Your task to perform on an android device: Open Maps and search for coffee Image 0: 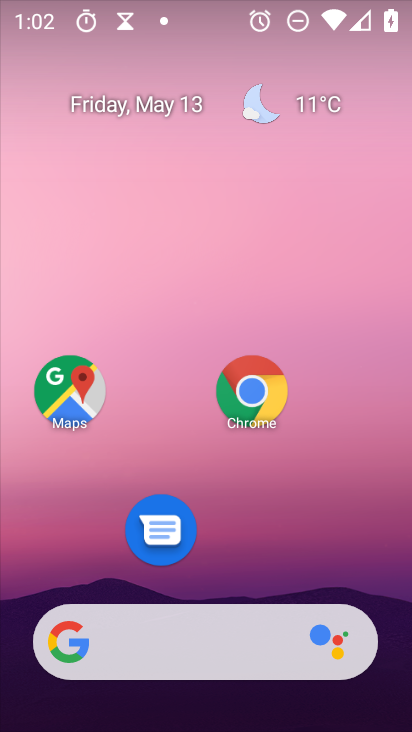
Step 0: press home button
Your task to perform on an android device: Open Maps and search for coffee Image 1: 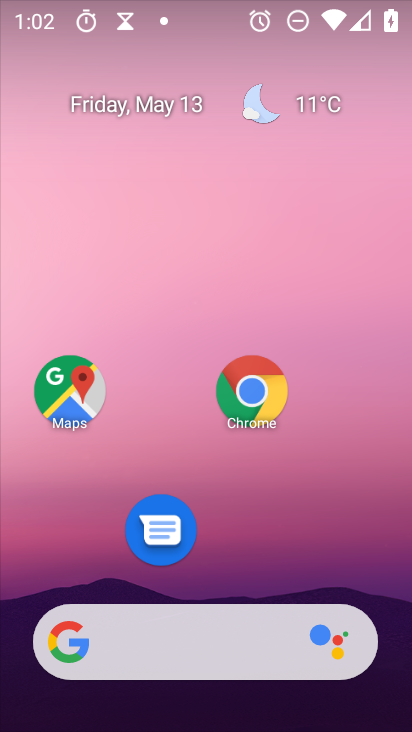
Step 1: click (78, 406)
Your task to perform on an android device: Open Maps and search for coffee Image 2: 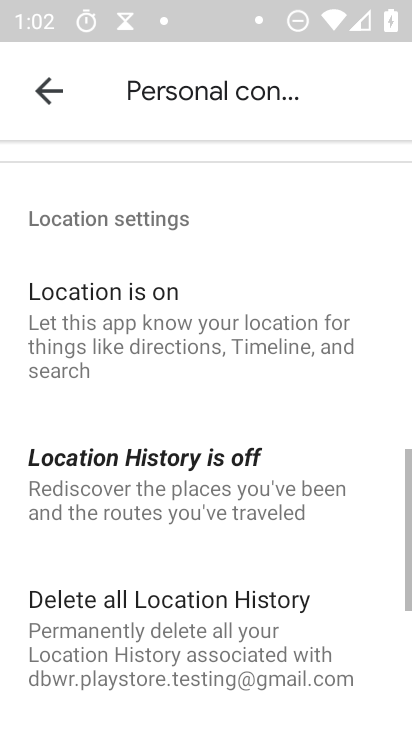
Step 2: click (56, 94)
Your task to perform on an android device: Open Maps and search for coffee Image 3: 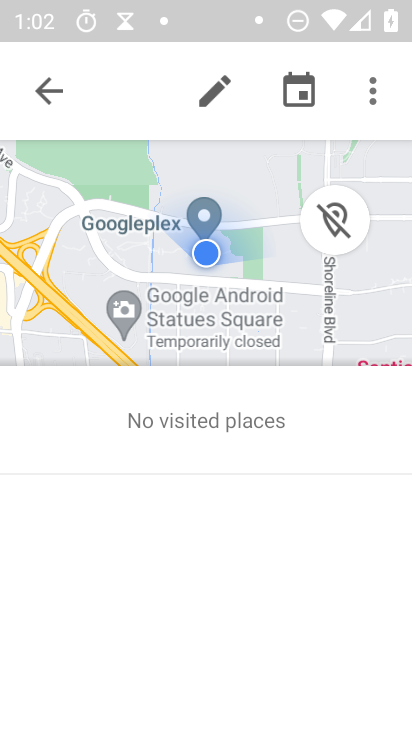
Step 3: click (56, 94)
Your task to perform on an android device: Open Maps and search for coffee Image 4: 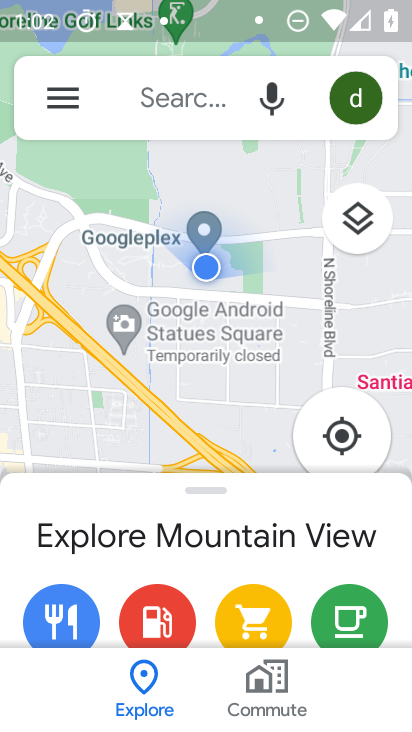
Step 4: click (195, 97)
Your task to perform on an android device: Open Maps and search for coffee Image 5: 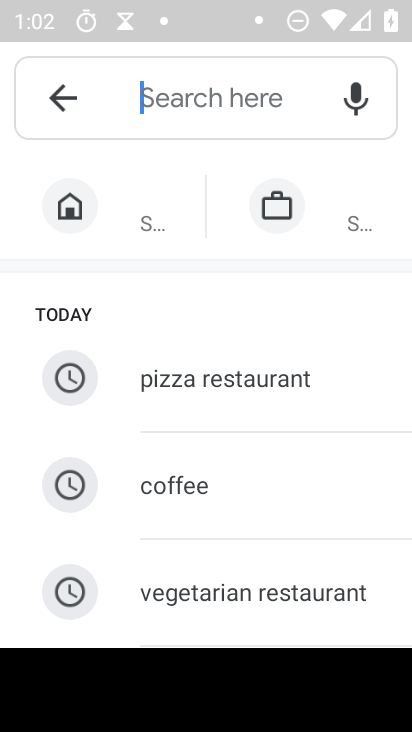
Step 5: click (176, 492)
Your task to perform on an android device: Open Maps and search for coffee Image 6: 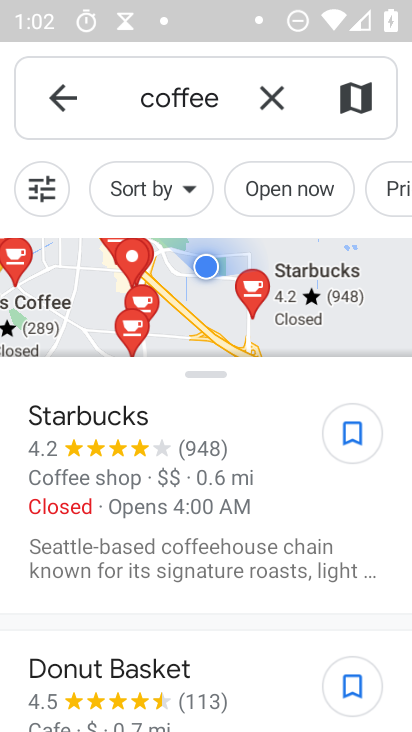
Step 6: task complete